Your task to perform on an android device: toggle translation in the chrome app Image 0: 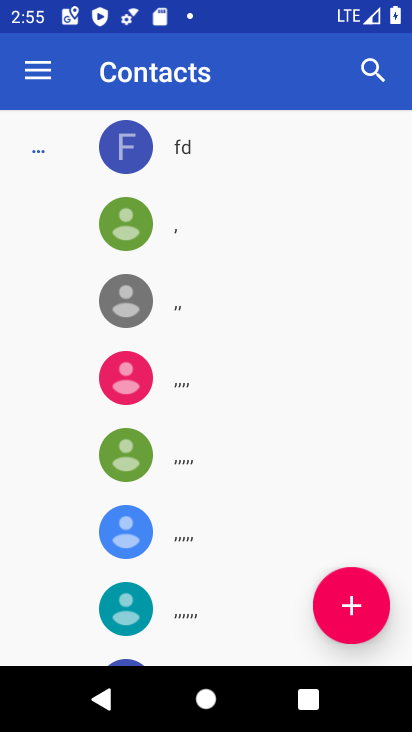
Step 0: press home button
Your task to perform on an android device: toggle translation in the chrome app Image 1: 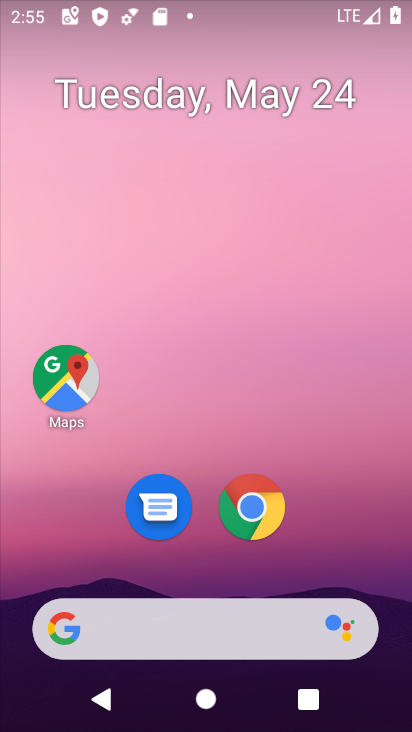
Step 1: click (251, 518)
Your task to perform on an android device: toggle translation in the chrome app Image 2: 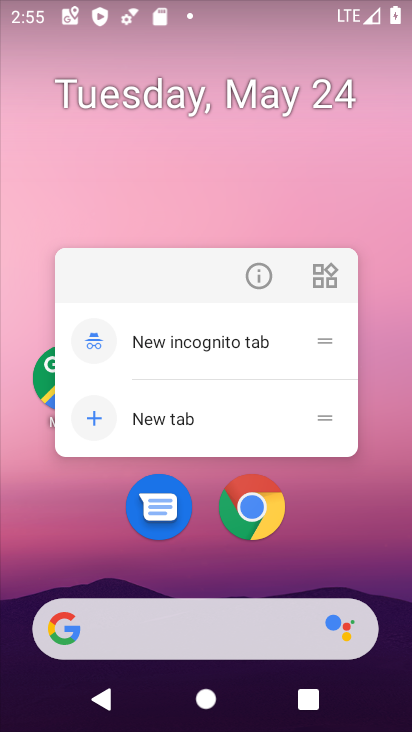
Step 2: click (260, 508)
Your task to perform on an android device: toggle translation in the chrome app Image 3: 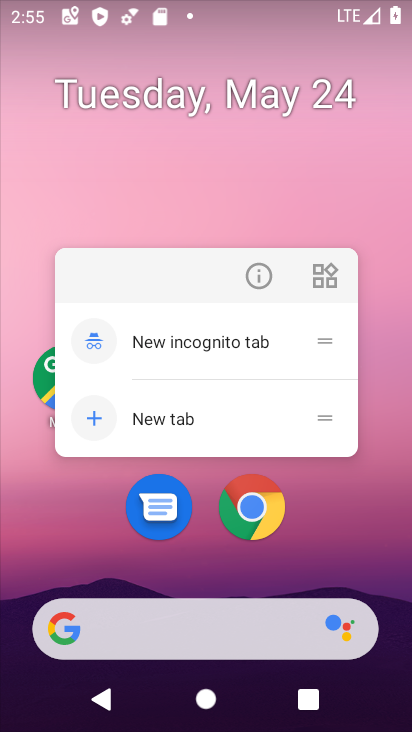
Step 3: click (260, 508)
Your task to perform on an android device: toggle translation in the chrome app Image 4: 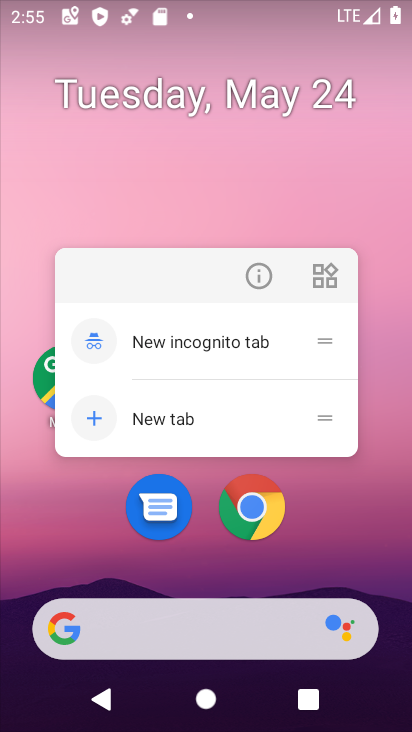
Step 4: click (251, 508)
Your task to perform on an android device: toggle translation in the chrome app Image 5: 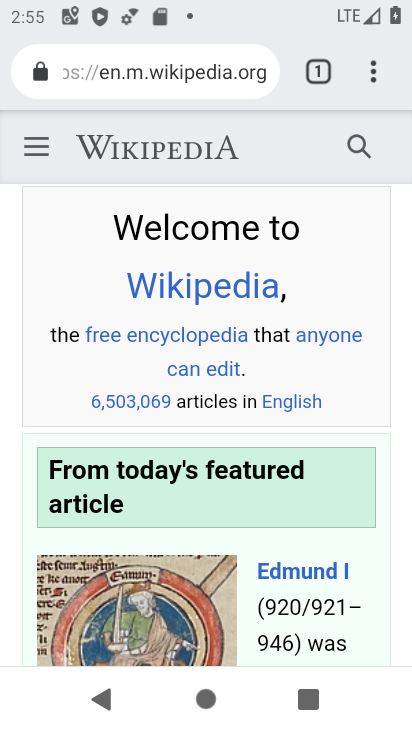
Step 5: drag from (368, 63) to (150, 498)
Your task to perform on an android device: toggle translation in the chrome app Image 6: 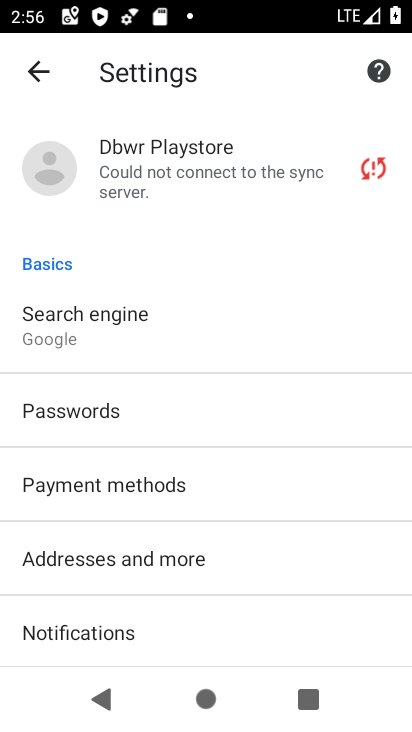
Step 6: drag from (179, 617) to (281, 143)
Your task to perform on an android device: toggle translation in the chrome app Image 7: 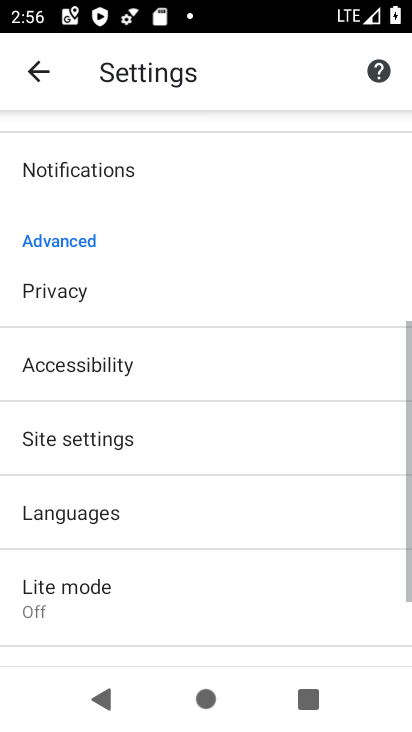
Step 7: click (94, 507)
Your task to perform on an android device: toggle translation in the chrome app Image 8: 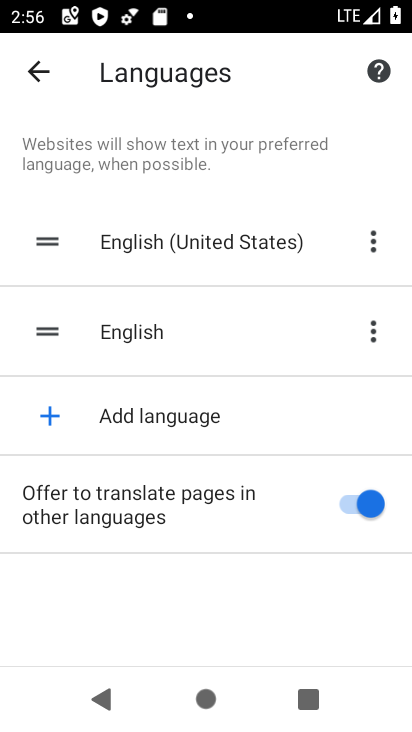
Step 8: click (364, 501)
Your task to perform on an android device: toggle translation in the chrome app Image 9: 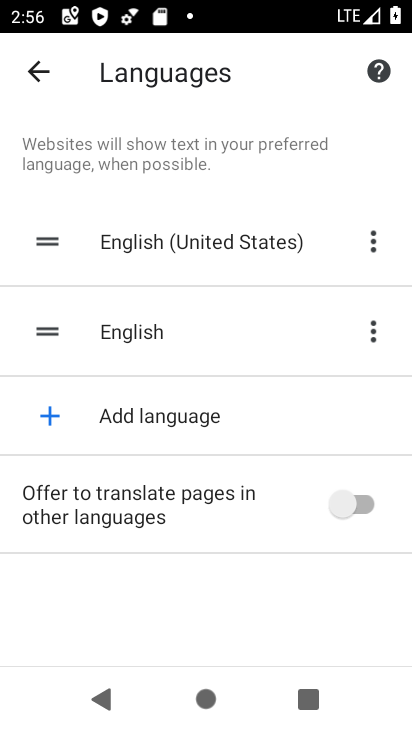
Step 9: task complete